Your task to perform on an android device: toggle location history Image 0: 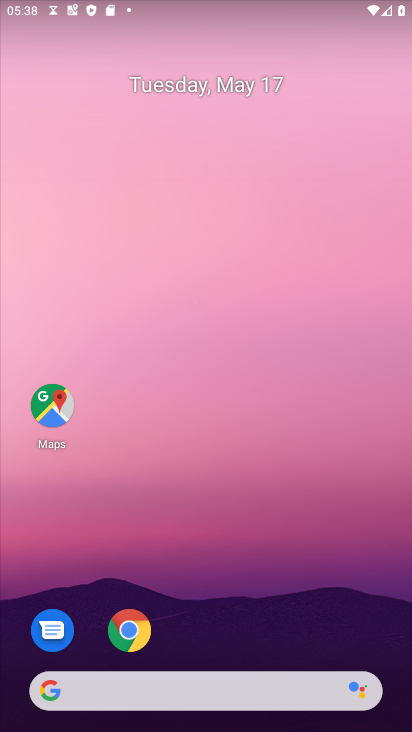
Step 0: press home button
Your task to perform on an android device: toggle location history Image 1: 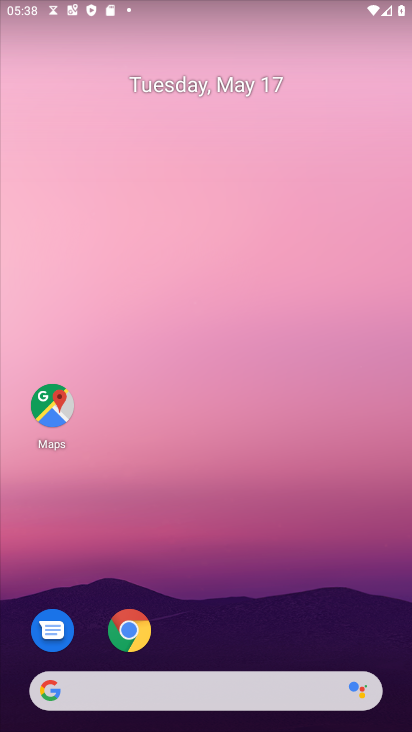
Step 1: drag from (288, 581) to (207, 127)
Your task to perform on an android device: toggle location history Image 2: 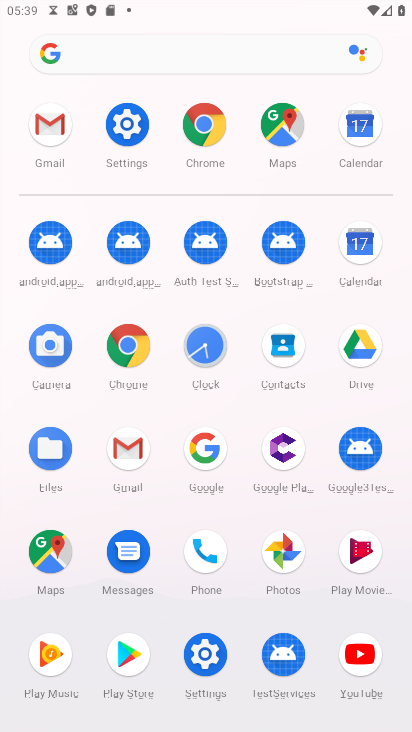
Step 2: click (268, 119)
Your task to perform on an android device: toggle location history Image 3: 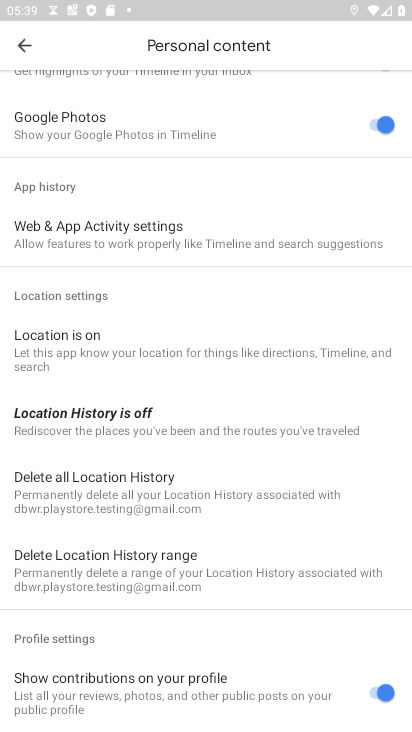
Step 3: click (119, 421)
Your task to perform on an android device: toggle location history Image 4: 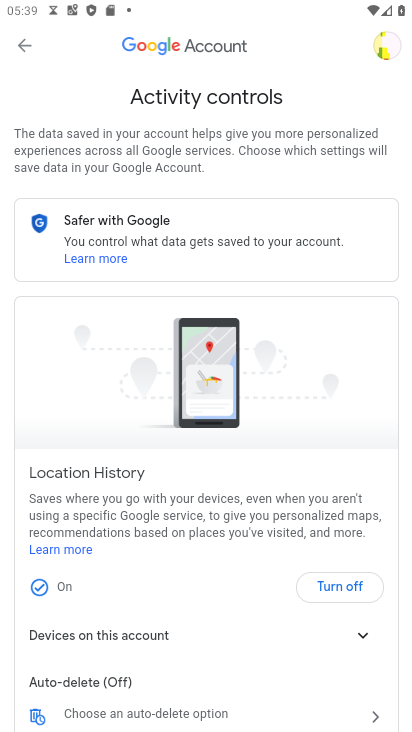
Step 4: click (319, 582)
Your task to perform on an android device: toggle location history Image 5: 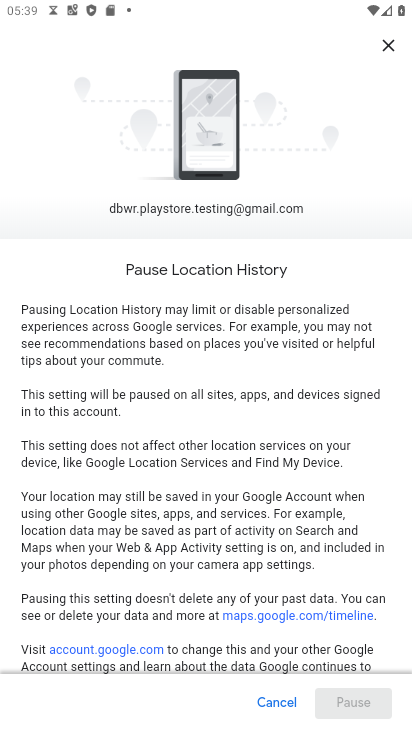
Step 5: drag from (303, 625) to (268, 188)
Your task to perform on an android device: toggle location history Image 6: 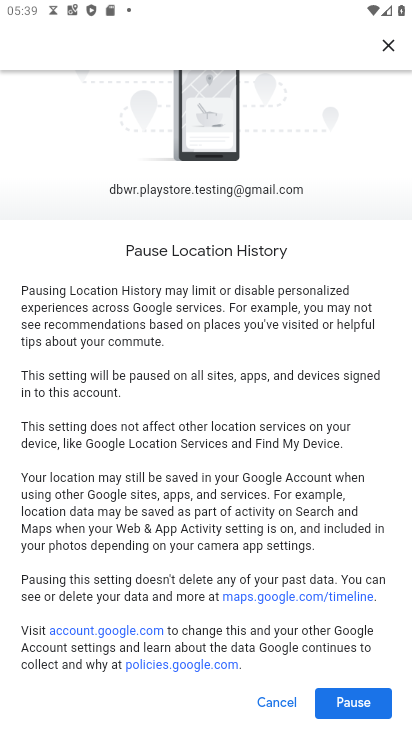
Step 6: click (351, 715)
Your task to perform on an android device: toggle location history Image 7: 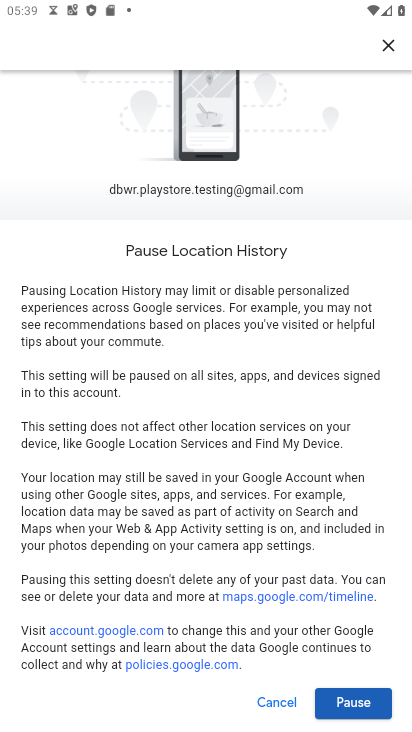
Step 7: click (351, 715)
Your task to perform on an android device: toggle location history Image 8: 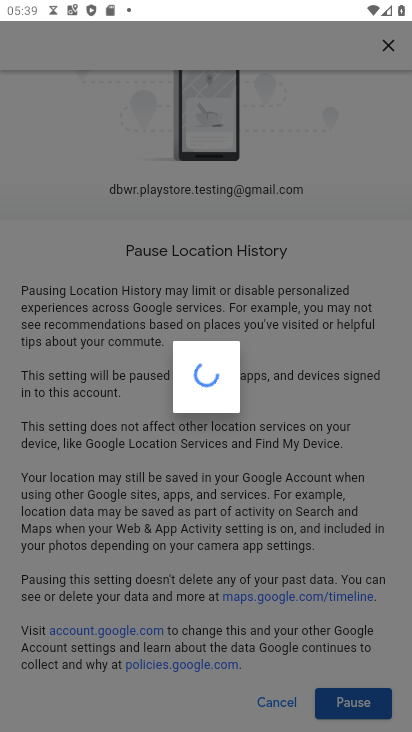
Step 8: click (354, 688)
Your task to perform on an android device: toggle location history Image 9: 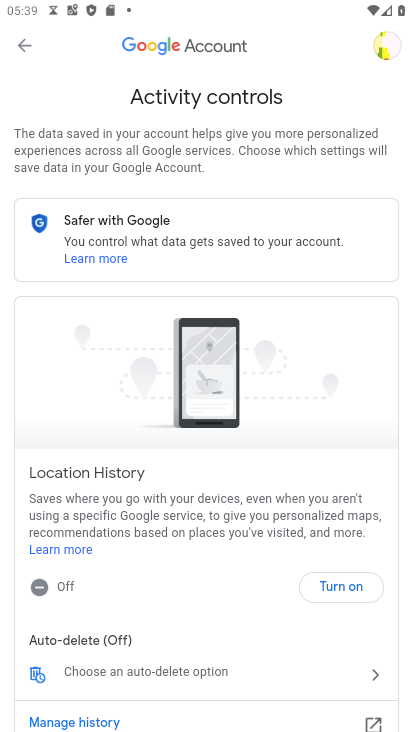
Step 9: task complete